Your task to perform on an android device: Open the map Image 0: 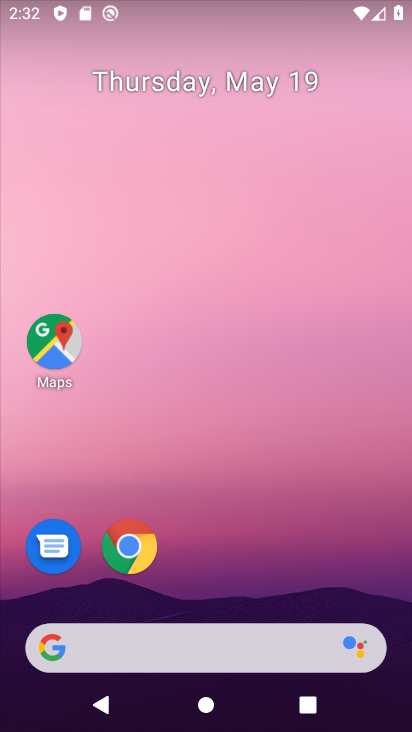
Step 0: press home button
Your task to perform on an android device: Open the map Image 1: 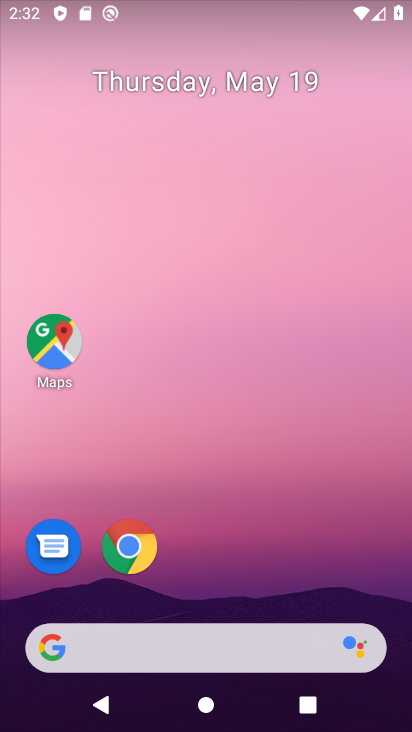
Step 1: click (56, 354)
Your task to perform on an android device: Open the map Image 2: 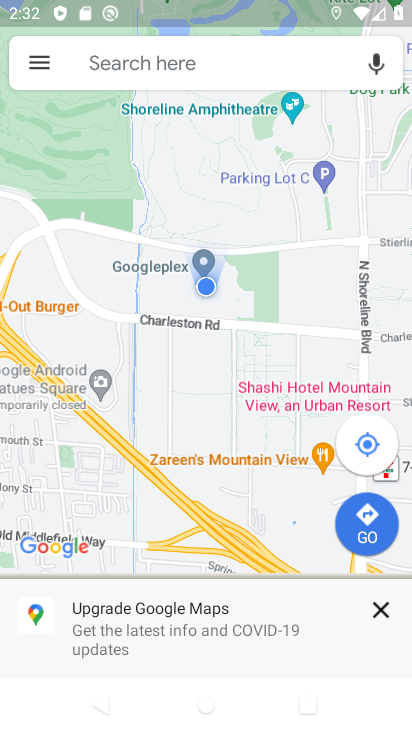
Step 2: task complete